Your task to perform on an android device: Go to Android settings Image 0: 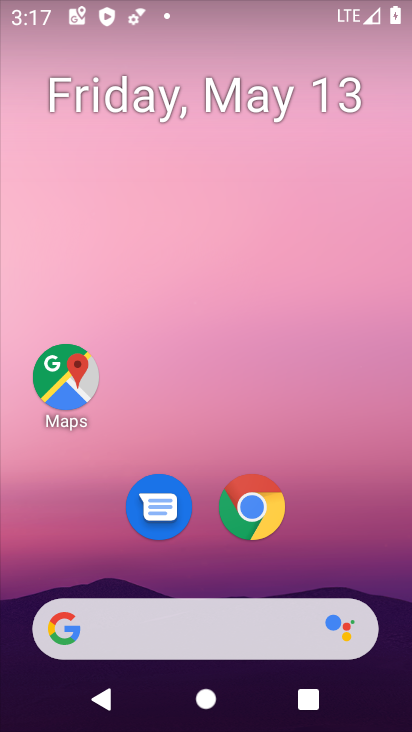
Step 0: drag from (357, 354) to (369, 88)
Your task to perform on an android device: Go to Android settings Image 1: 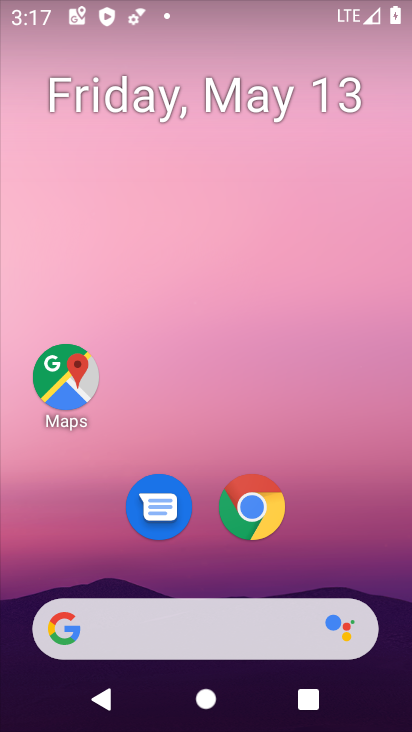
Step 1: drag from (309, 468) to (284, 94)
Your task to perform on an android device: Go to Android settings Image 2: 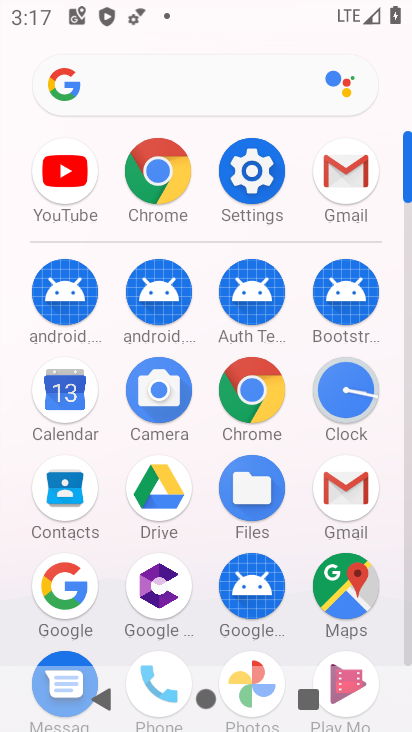
Step 2: click (252, 198)
Your task to perform on an android device: Go to Android settings Image 3: 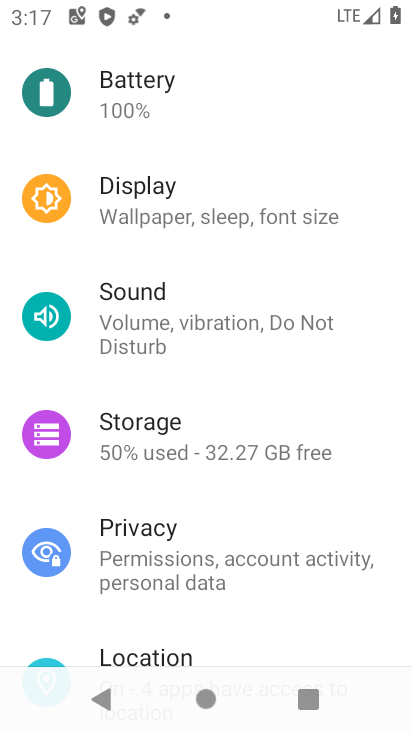
Step 3: task complete